Your task to perform on an android device: Go to display settings Image 0: 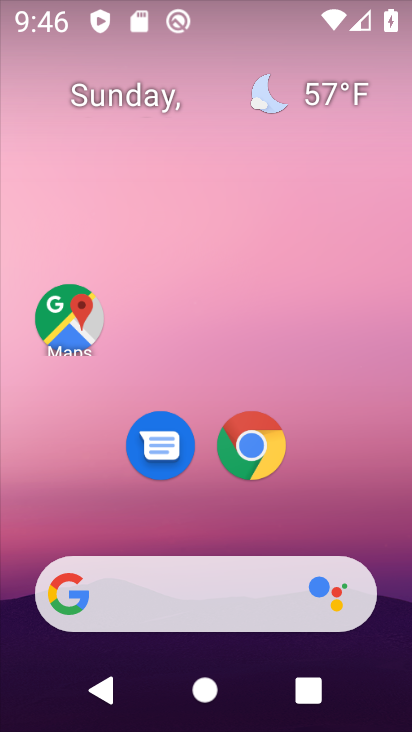
Step 0: click (358, 447)
Your task to perform on an android device: Go to display settings Image 1: 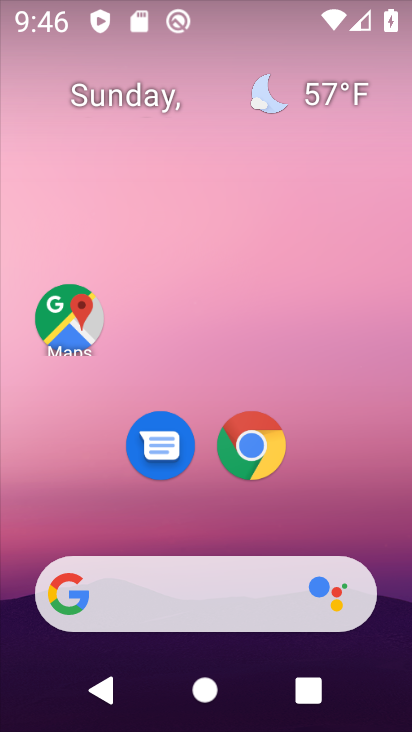
Step 1: drag from (251, 441) to (359, 5)
Your task to perform on an android device: Go to display settings Image 2: 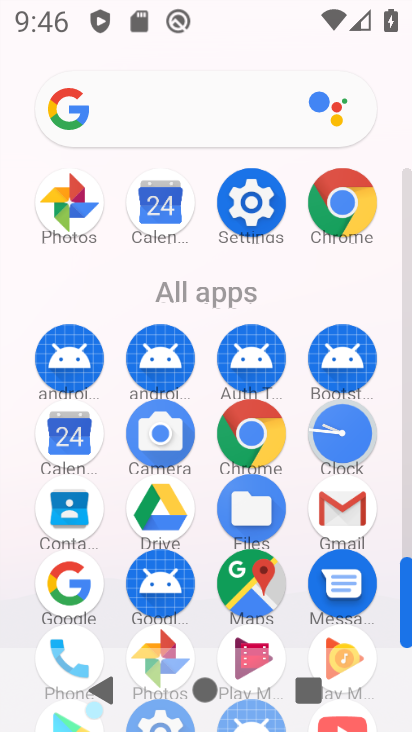
Step 2: click (263, 234)
Your task to perform on an android device: Go to display settings Image 3: 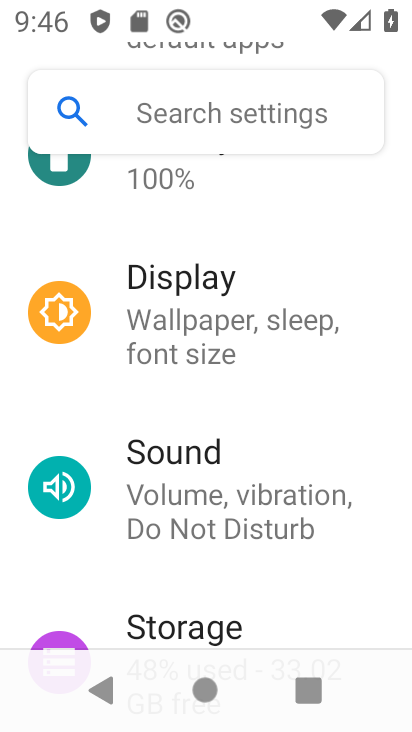
Step 3: click (194, 361)
Your task to perform on an android device: Go to display settings Image 4: 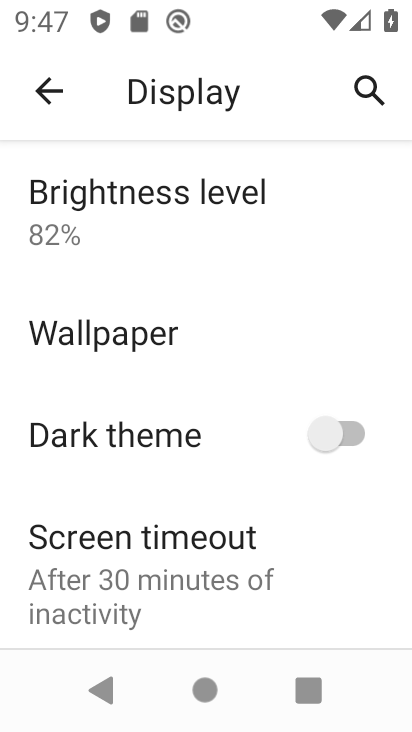
Step 4: task complete